Your task to perform on an android device: set the stopwatch Image 0: 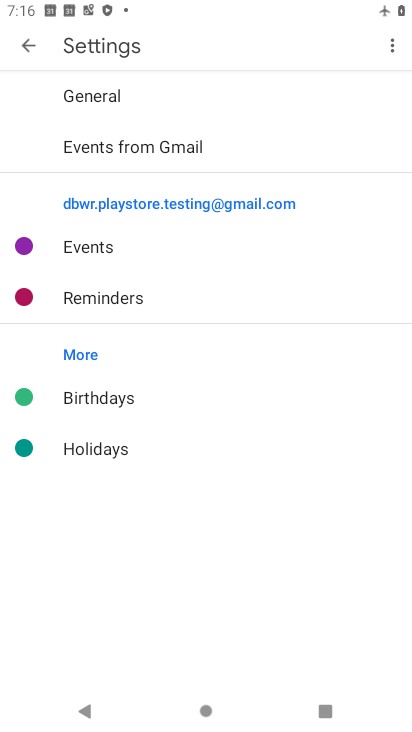
Step 0: press home button
Your task to perform on an android device: set the stopwatch Image 1: 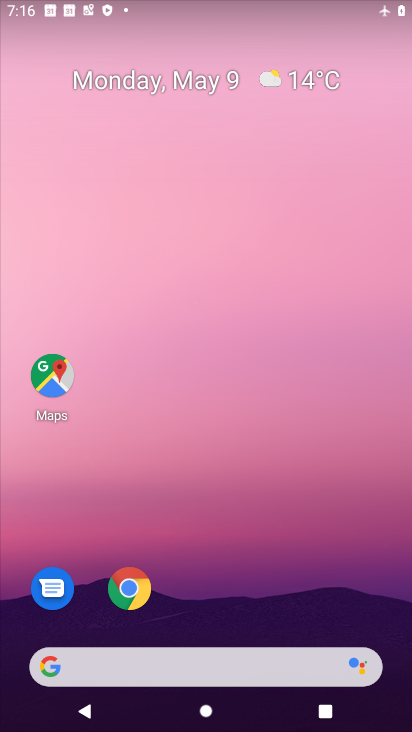
Step 1: drag from (325, 605) to (283, 31)
Your task to perform on an android device: set the stopwatch Image 2: 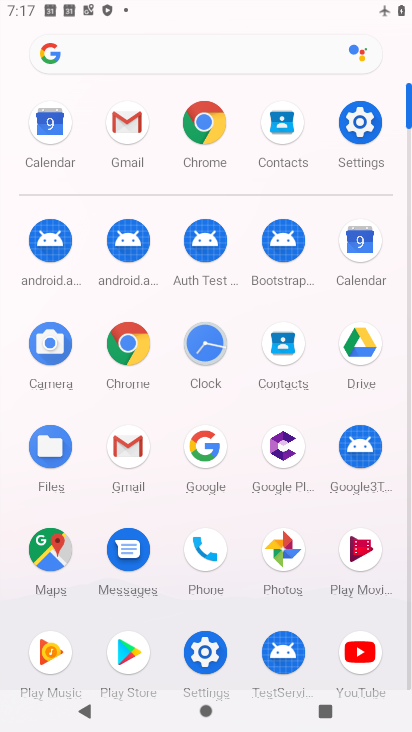
Step 2: click (189, 344)
Your task to perform on an android device: set the stopwatch Image 3: 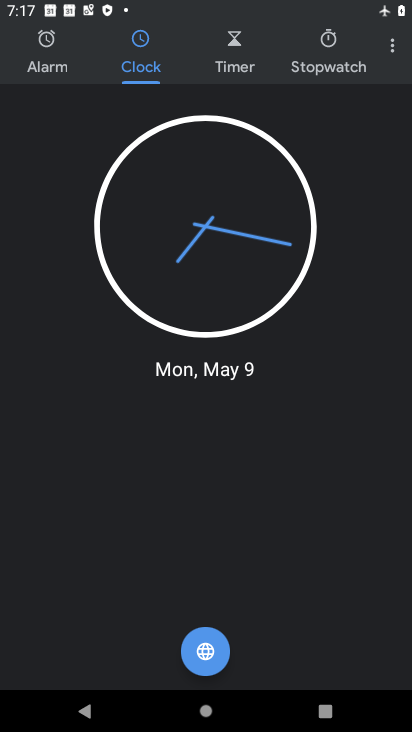
Step 3: click (324, 47)
Your task to perform on an android device: set the stopwatch Image 4: 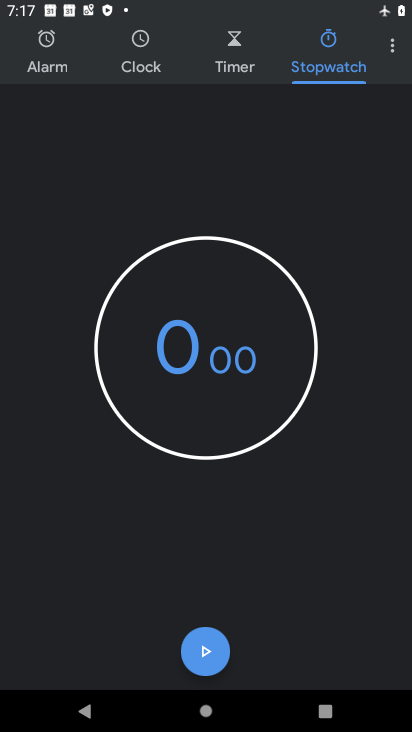
Step 4: task complete